Your task to perform on an android device: Open battery settings Image 0: 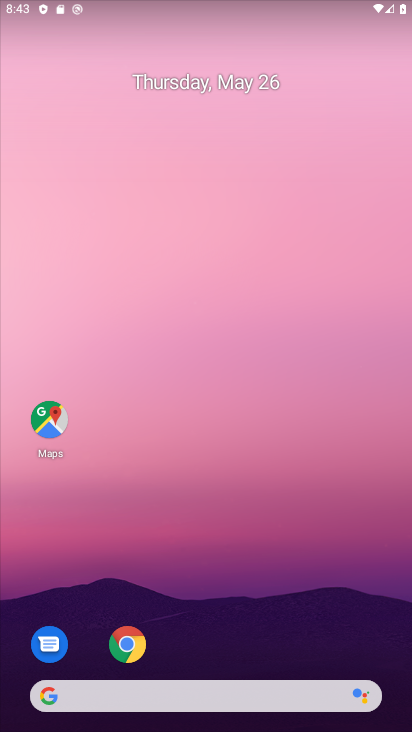
Step 0: drag from (199, 688) to (296, 165)
Your task to perform on an android device: Open battery settings Image 1: 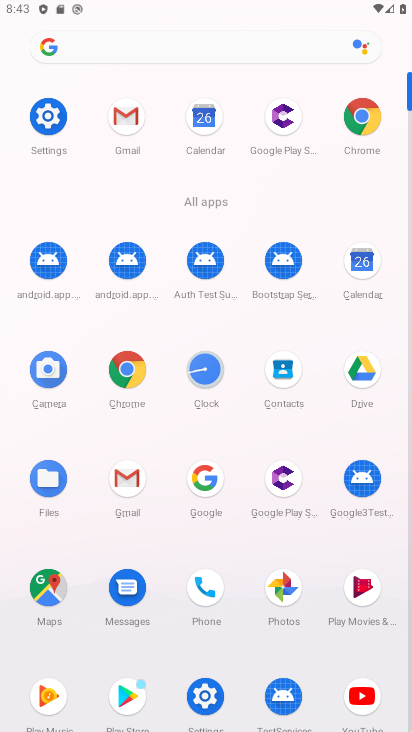
Step 1: click (45, 130)
Your task to perform on an android device: Open battery settings Image 2: 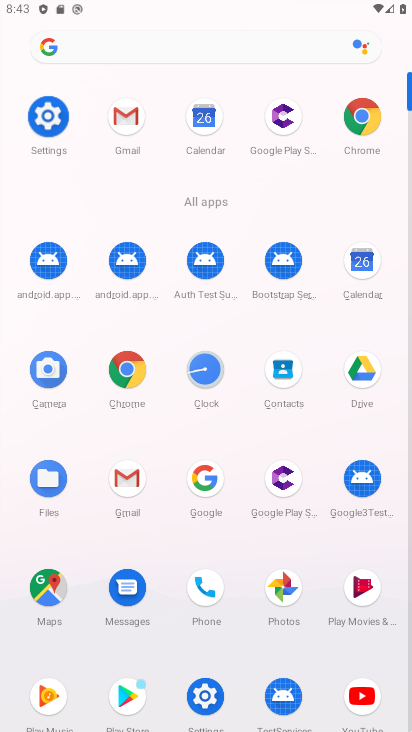
Step 2: drag from (60, 225) to (68, 351)
Your task to perform on an android device: Open battery settings Image 3: 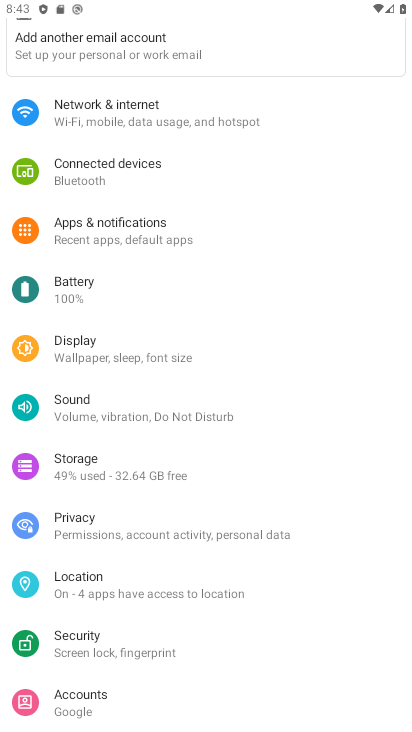
Step 3: click (133, 288)
Your task to perform on an android device: Open battery settings Image 4: 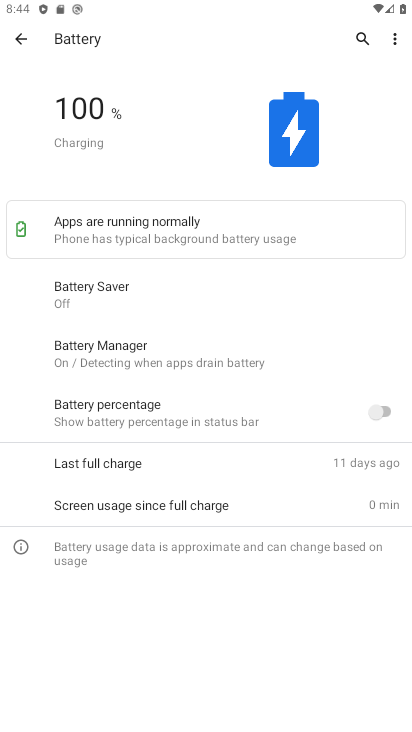
Step 4: task complete